Your task to perform on an android device: What's the weather going to be tomorrow? Image 0: 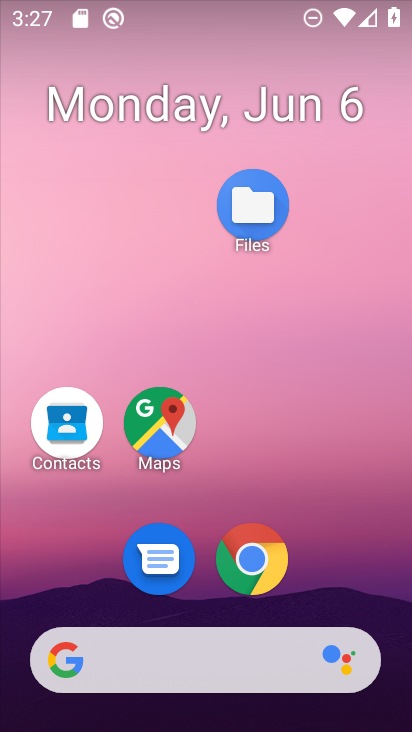
Step 0: drag from (226, 630) to (221, 210)
Your task to perform on an android device: What's the weather going to be tomorrow? Image 1: 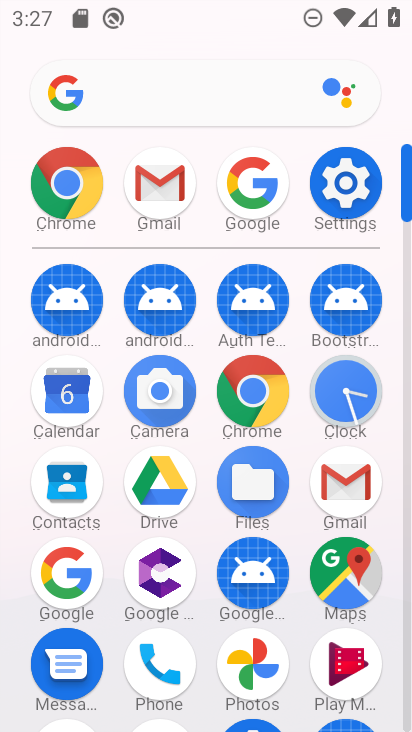
Step 1: click (77, 576)
Your task to perform on an android device: What's the weather going to be tomorrow? Image 2: 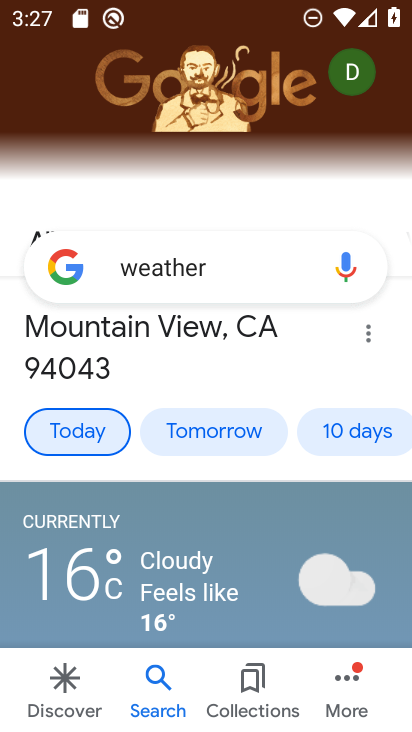
Step 2: click (189, 441)
Your task to perform on an android device: What's the weather going to be tomorrow? Image 3: 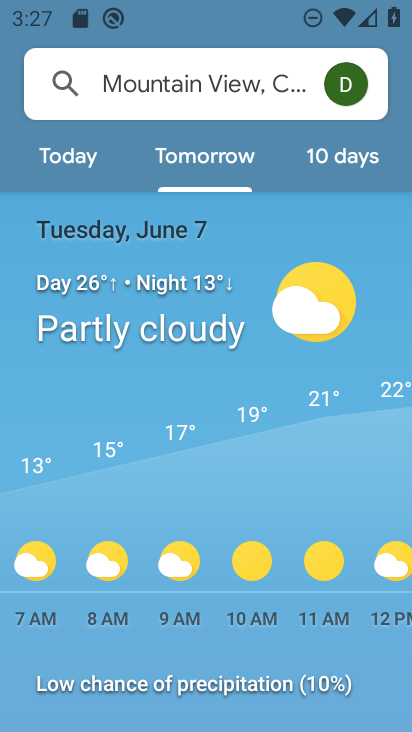
Step 3: task complete